Your task to perform on an android device: turn on the 12-hour format for clock Image 0: 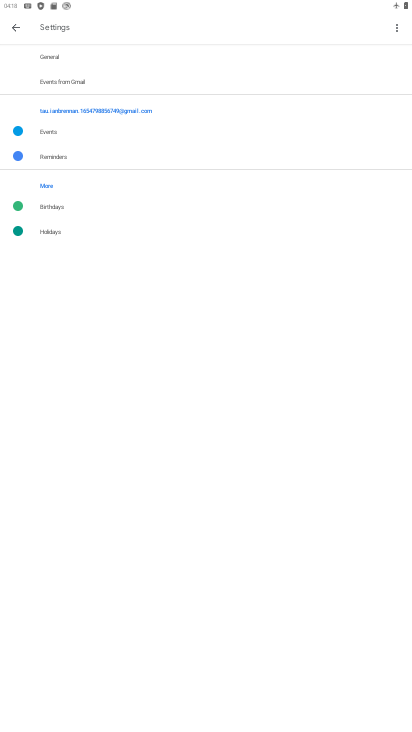
Step 0: press home button
Your task to perform on an android device: turn on the 12-hour format for clock Image 1: 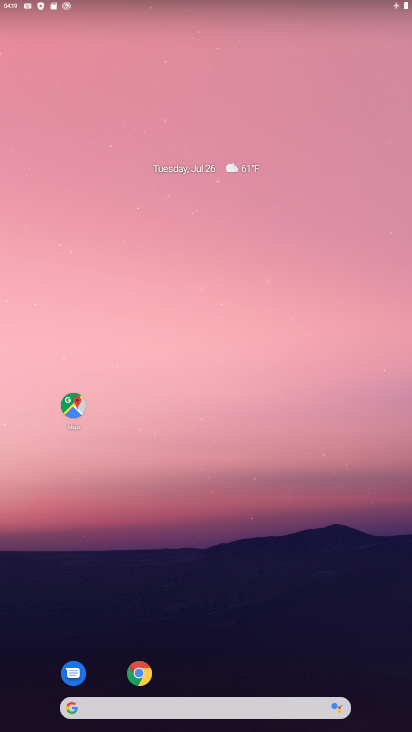
Step 1: drag from (256, 660) to (297, 0)
Your task to perform on an android device: turn on the 12-hour format for clock Image 2: 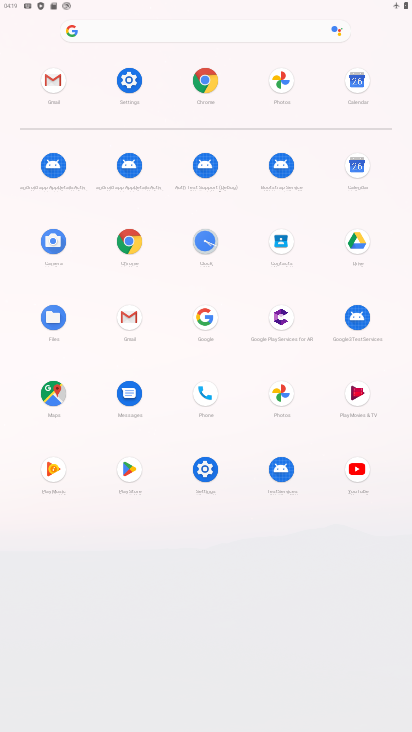
Step 2: click (204, 233)
Your task to perform on an android device: turn on the 12-hour format for clock Image 3: 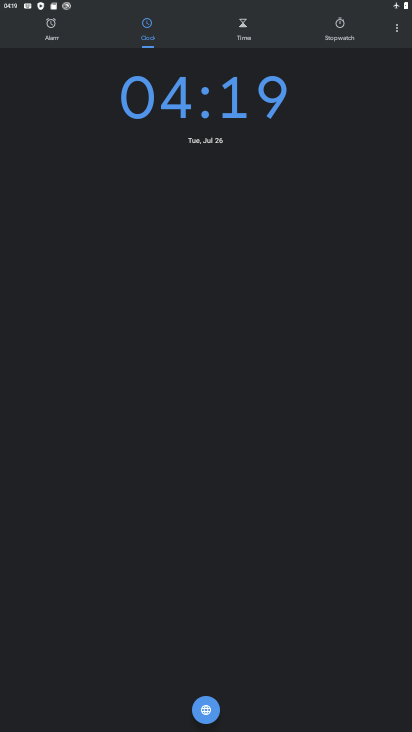
Step 3: click (390, 28)
Your task to perform on an android device: turn on the 12-hour format for clock Image 4: 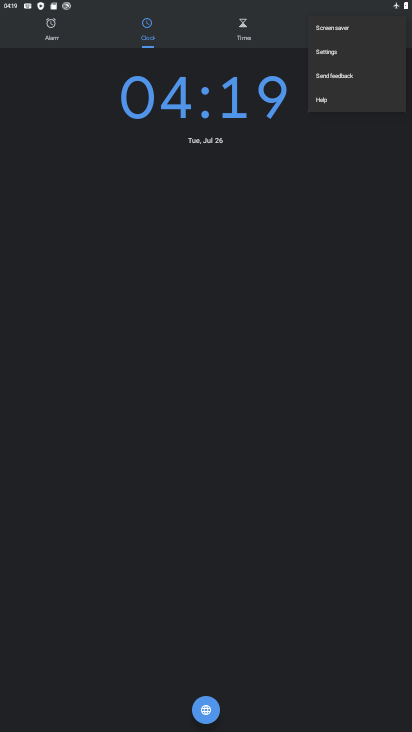
Step 4: click (335, 53)
Your task to perform on an android device: turn on the 12-hour format for clock Image 5: 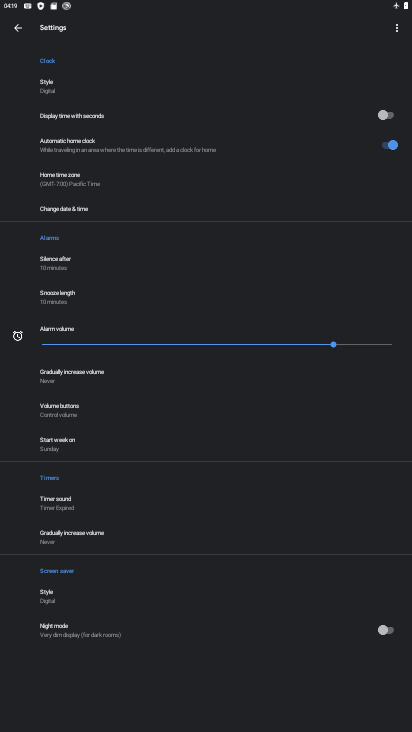
Step 5: click (81, 212)
Your task to perform on an android device: turn on the 12-hour format for clock Image 6: 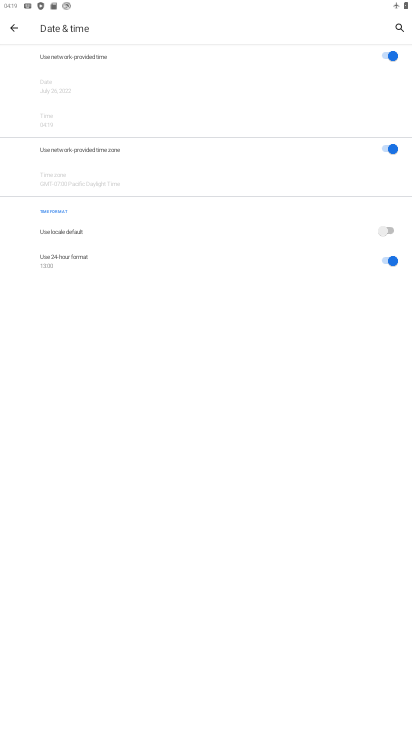
Step 6: click (377, 229)
Your task to perform on an android device: turn on the 12-hour format for clock Image 7: 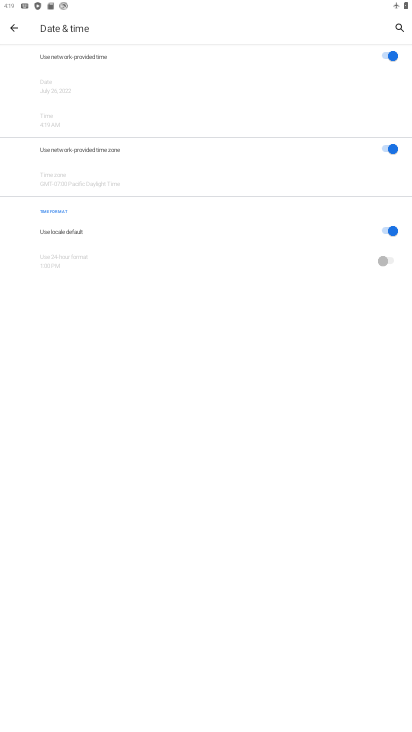
Step 7: task complete